Your task to perform on an android device: What's the latest news in tech? Image 0: 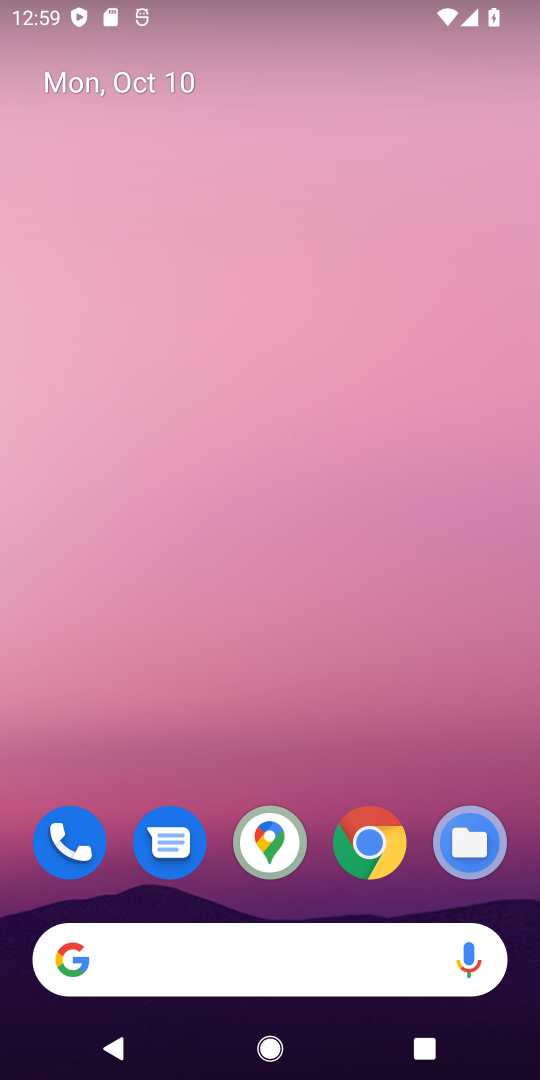
Step 0: click (358, 857)
Your task to perform on an android device: What's the latest news in tech? Image 1: 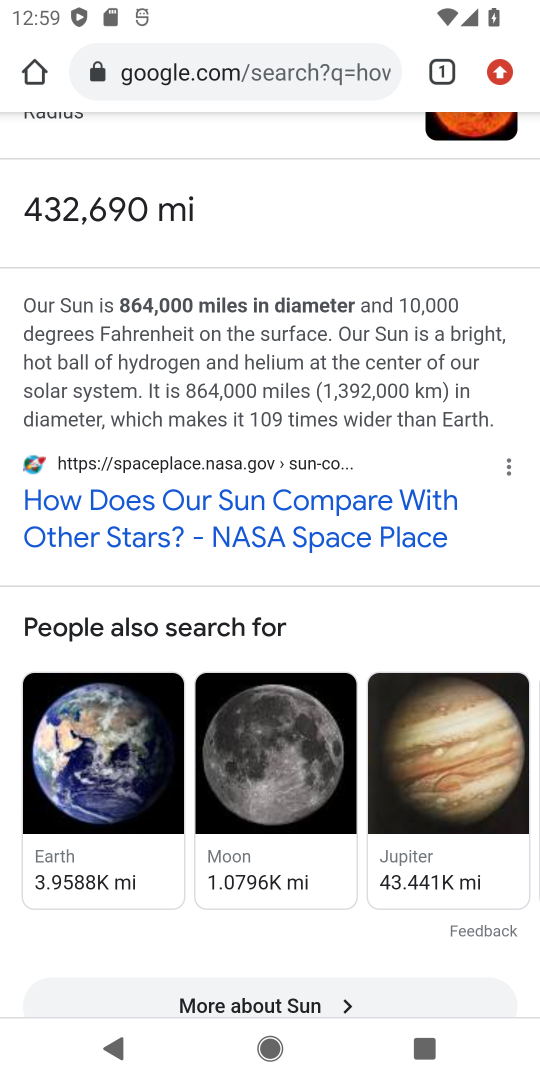
Step 1: click (176, 79)
Your task to perform on an android device: What's the latest news in tech? Image 2: 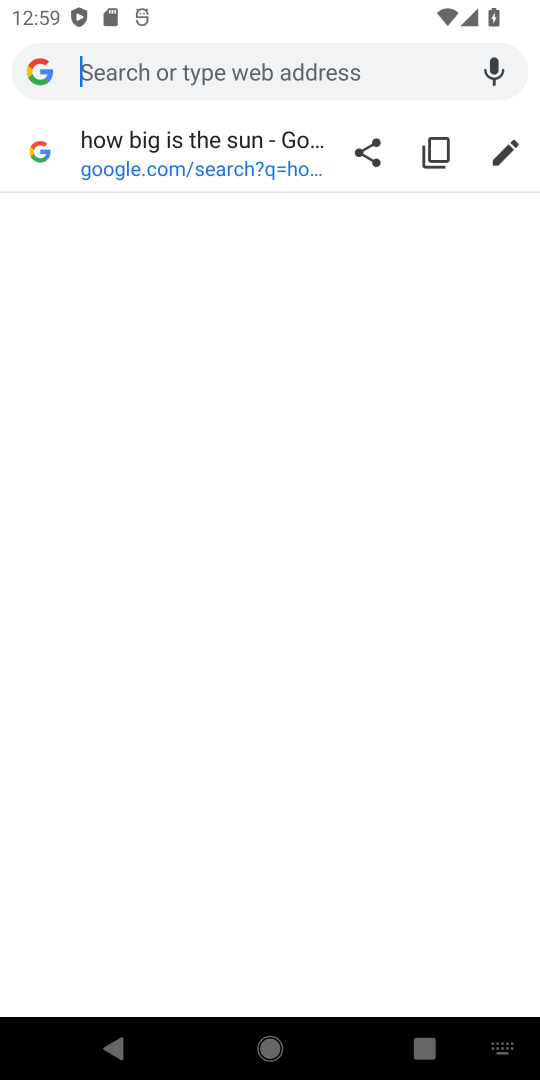
Step 2: type "latest news in tech"
Your task to perform on an android device: What's the latest news in tech? Image 3: 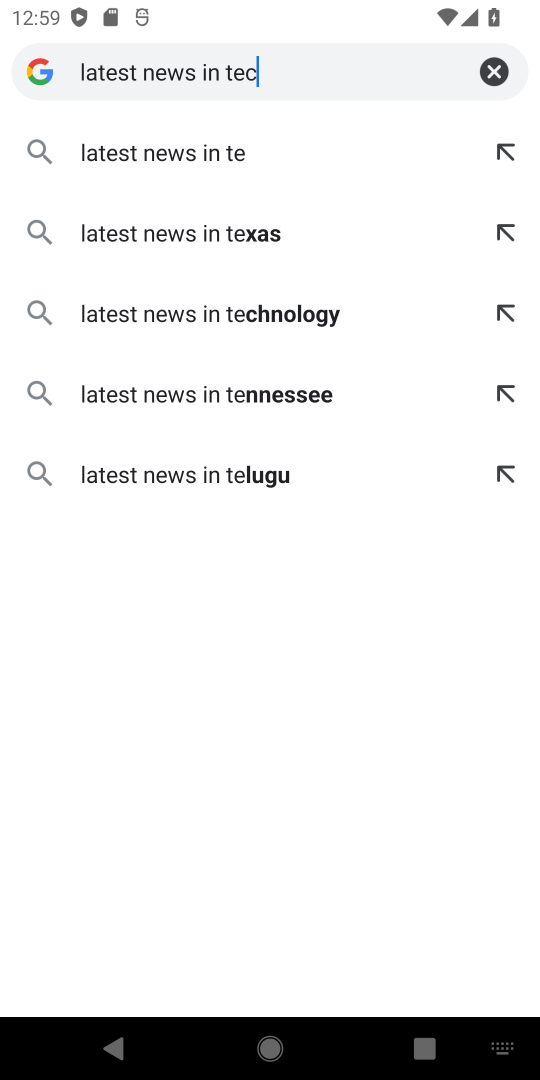
Step 3: press enter
Your task to perform on an android device: What's the latest news in tech? Image 4: 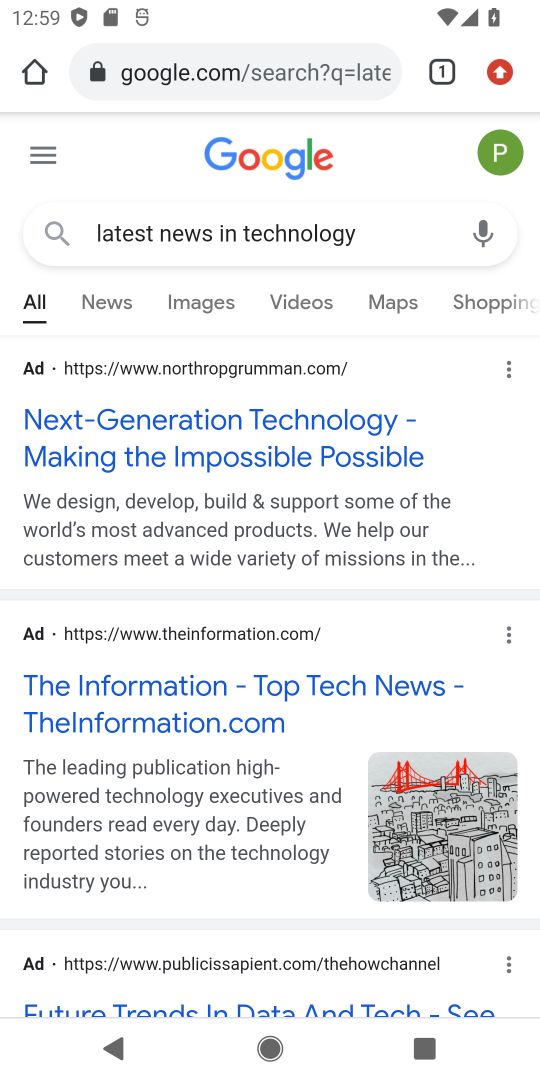
Step 4: click (121, 299)
Your task to perform on an android device: What's the latest news in tech? Image 5: 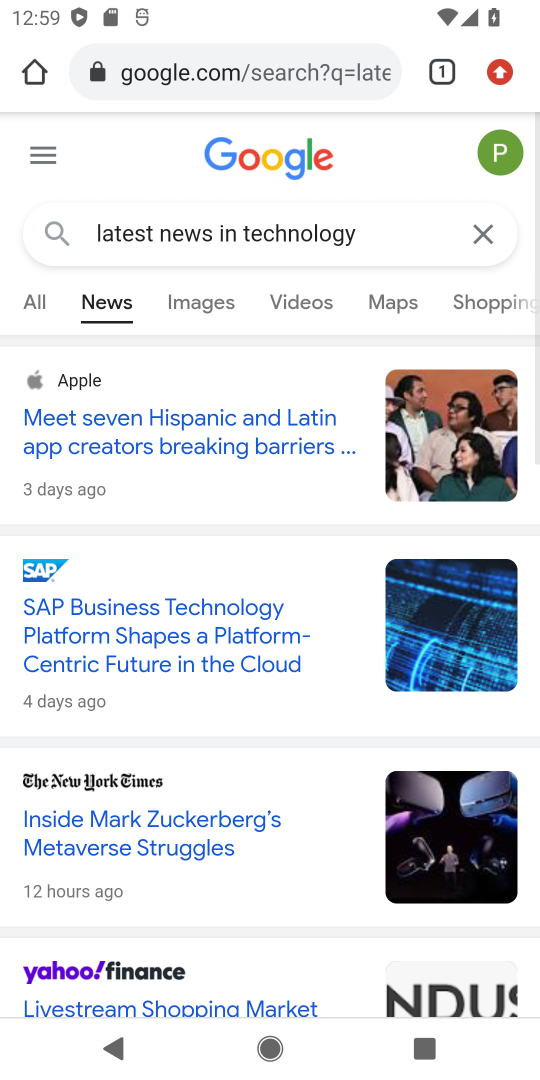
Step 5: task complete